Your task to perform on an android device: turn off priority inbox in the gmail app Image 0: 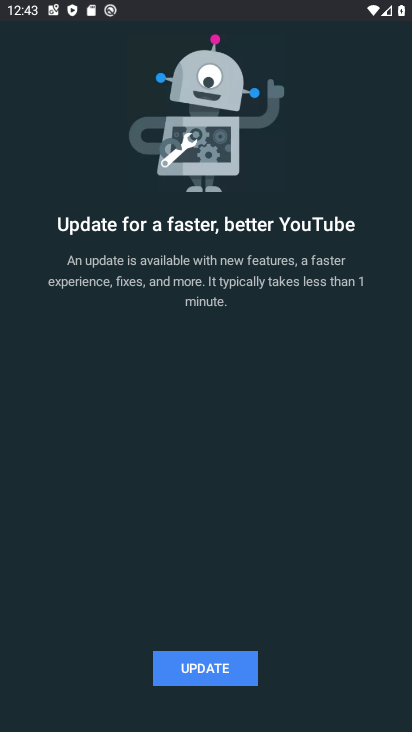
Step 0: press home button
Your task to perform on an android device: turn off priority inbox in the gmail app Image 1: 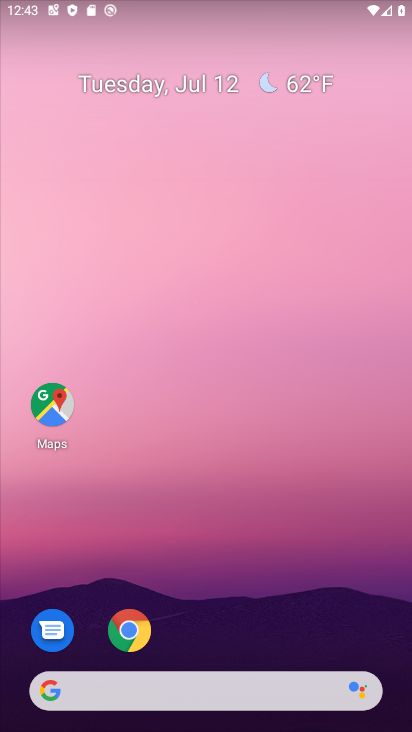
Step 1: drag from (257, 626) to (224, 165)
Your task to perform on an android device: turn off priority inbox in the gmail app Image 2: 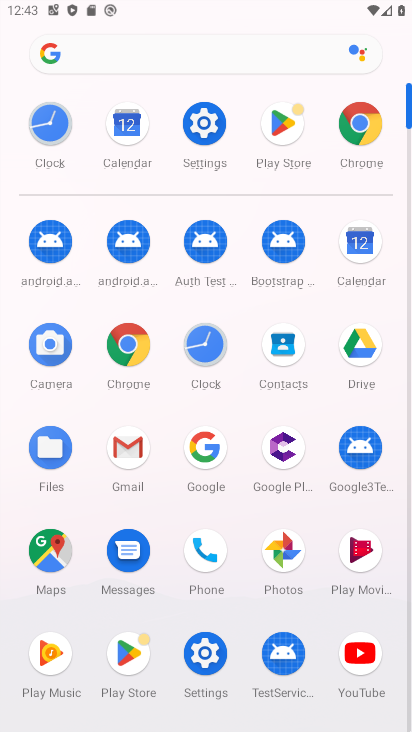
Step 2: click (121, 455)
Your task to perform on an android device: turn off priority inbox in the gmail app Image 3: 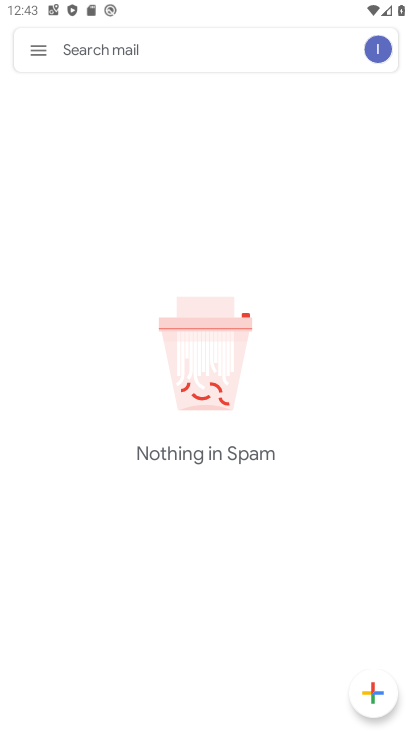
Step 3: click (34, 46)
Your task to perform on an android device: turn off priority inbox in the gmail app Image 4: 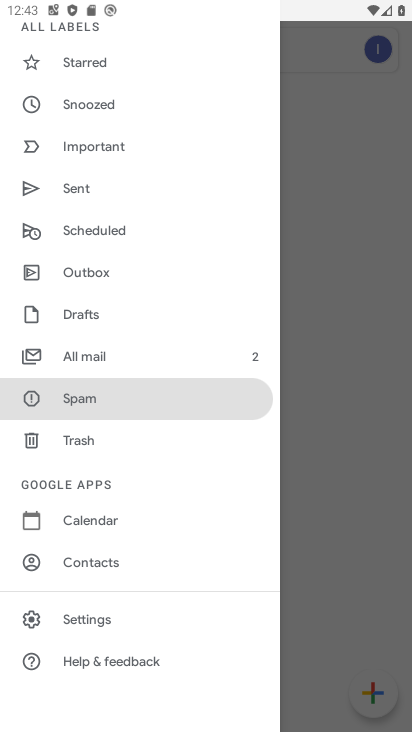
Step 4: click (76, 616)
Your task to perform on an android device: turn off priority inbox in the gmail app Image 5: 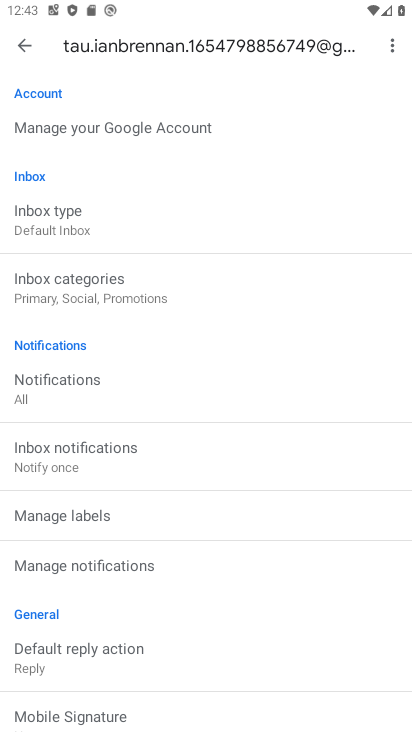
Step 5: click (57, 210)
Your task to perform on an android device: turn off priority inbox in the gmail app Image 6: 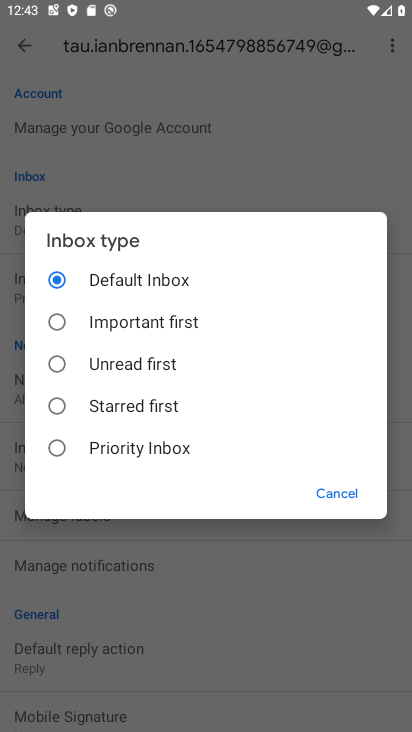
Step 6: task complete